Your task to perform on an android device: find photos in the google photos app Image 0: 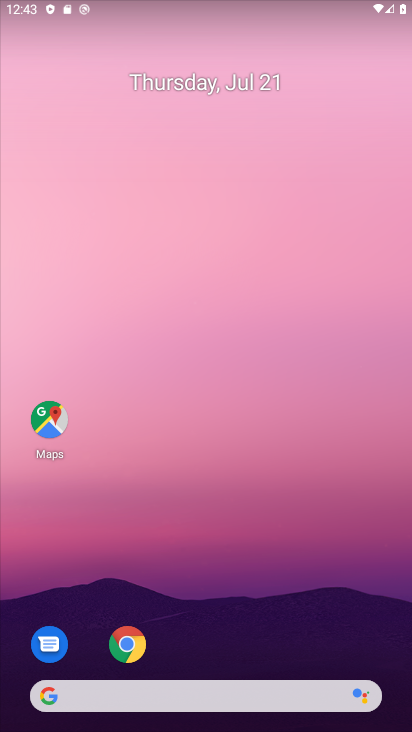
Step 0: drag from (326, 593) to (408, 13)
Your task to perform on an android device: find photos in the google photos app Image 1: 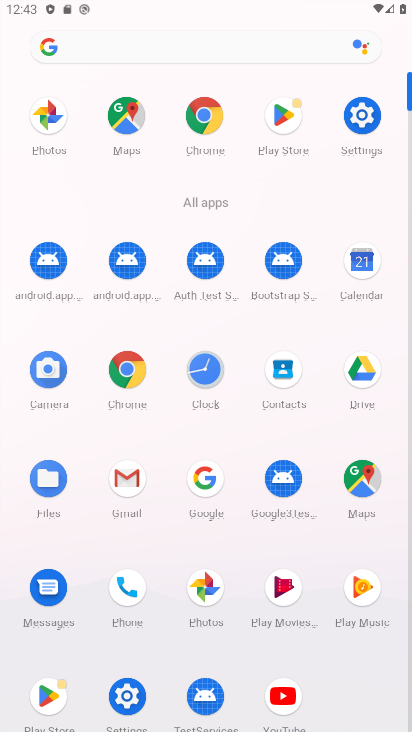
Step 1: click (201, 582)
Your task to perform on an android device: find photos in the google photos app Image 2: 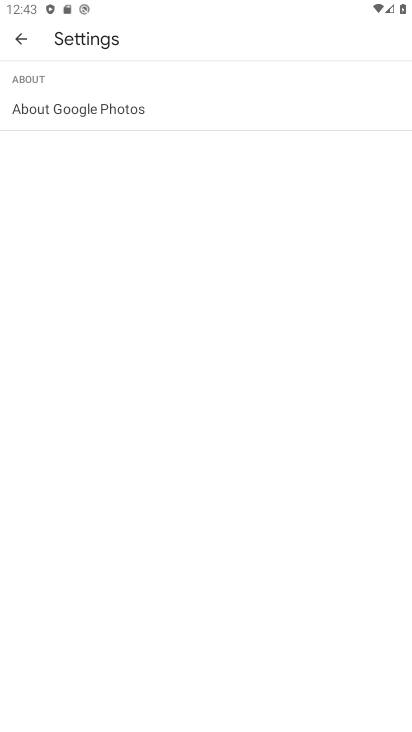
Step 2: click (19, 37)
Your task to perform on an android device: find photos in the google photos app Image 3: 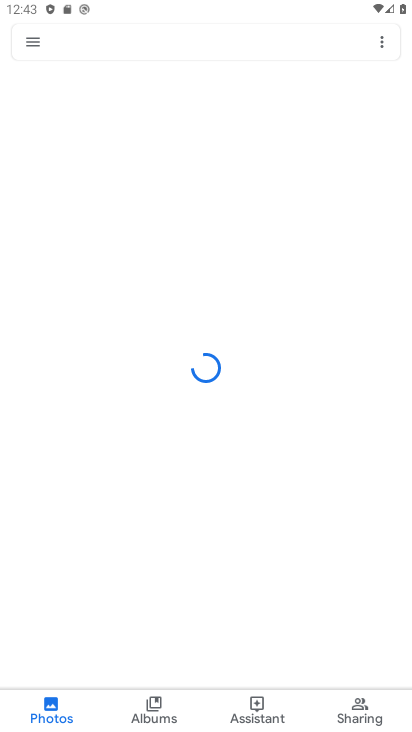
Step 3: click (42, 706)
Your task to perform on an android device: find photos in the google photos app Image 4: 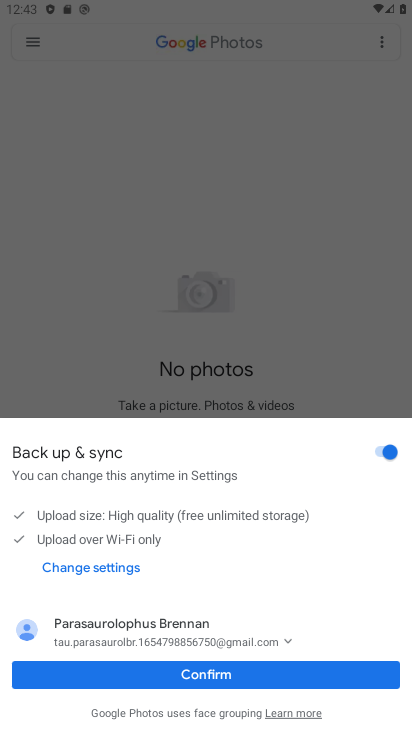
Step 4: click (176, 670)
Your task to perform on an android device: find photos in the google photos app Image 5: 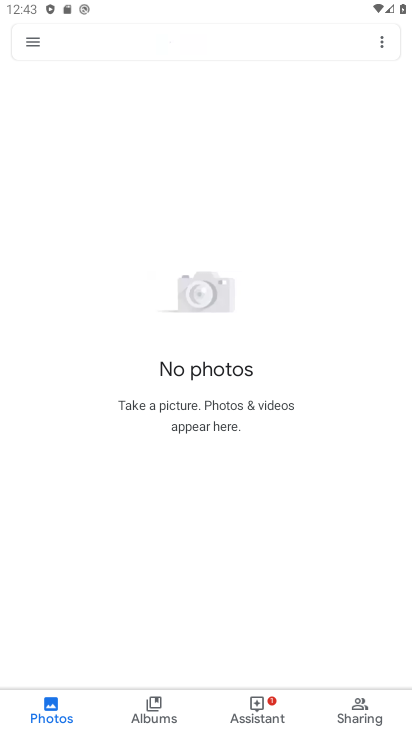
Step 5: task complete